Your task to perform on an android device: turn off data saver in the chrome app Image 0: 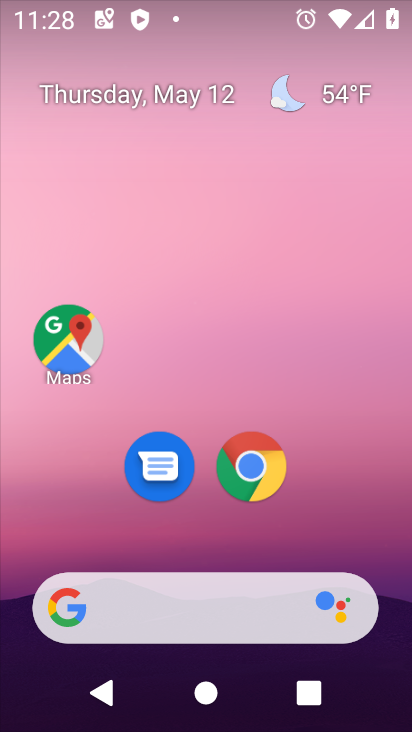
Step 0: drag from (369, 550) to (345, 202)
Your task to perform on an android device: turn off data saver in the chrome app Image 1: 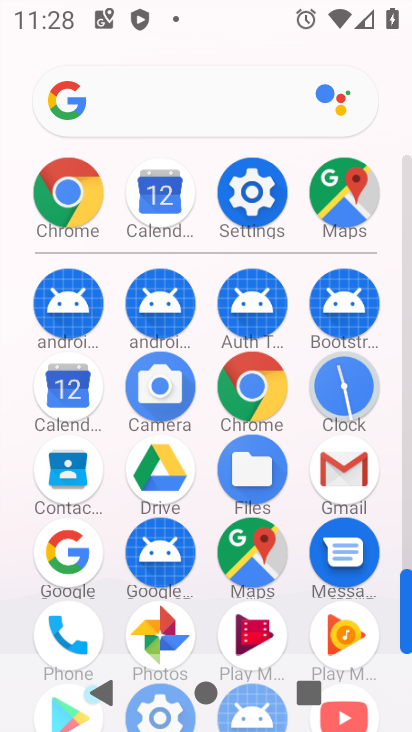
Step 1: click (276, 397)
Your task to perform on an android device: turn off data saver in the chrome app Image 2: 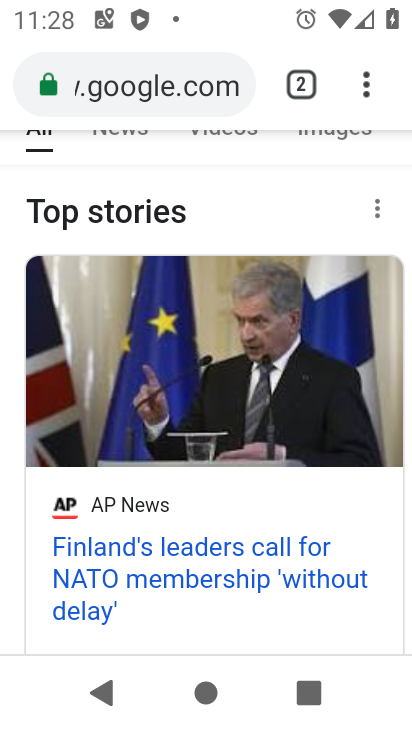
Step 2: drag from (335, 558) to (404, 195)
Your task to perform on an android device: turn off data saver in the chrome app Image 3: 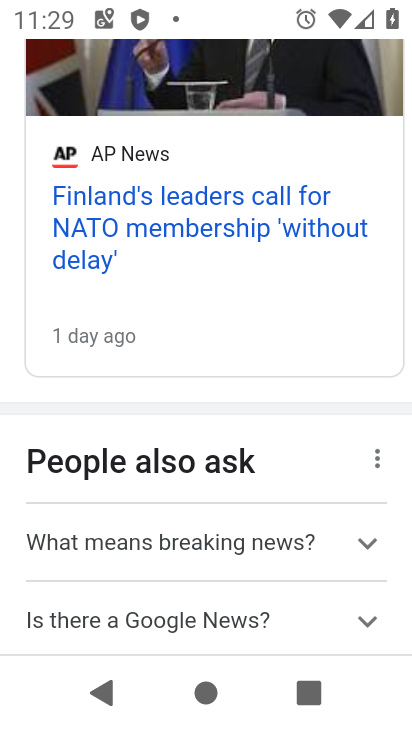
Step 3: drag from (254, 597) to (286, 315)
Your task to perform on an android device: turn off data saver in the chrome app Image 4: 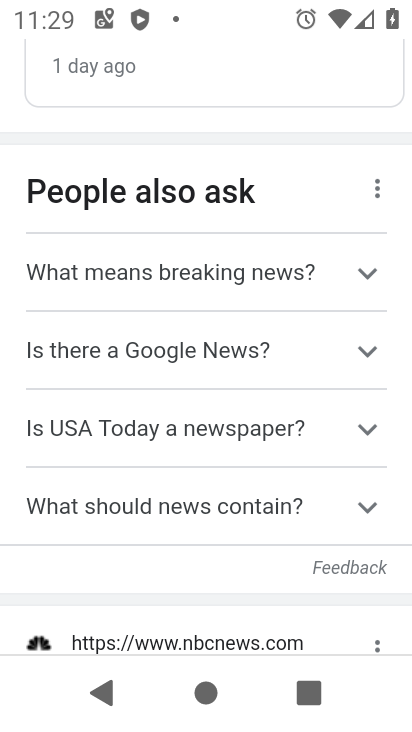
Step 4: drag from (325, 212) to (319, 447)
Your task to perform on an android device: turn off data saver in the chrome app Image 5: 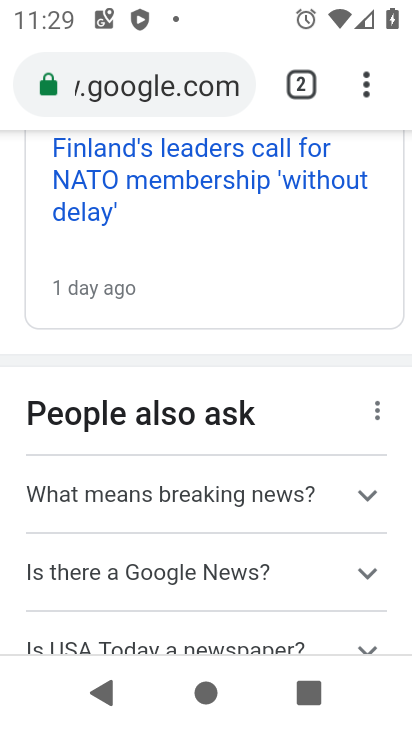
Step 5: drag from (370, 109) to (184, 525)
Your task to perform on an android device: turn off data saver in the chrome app Image 6: 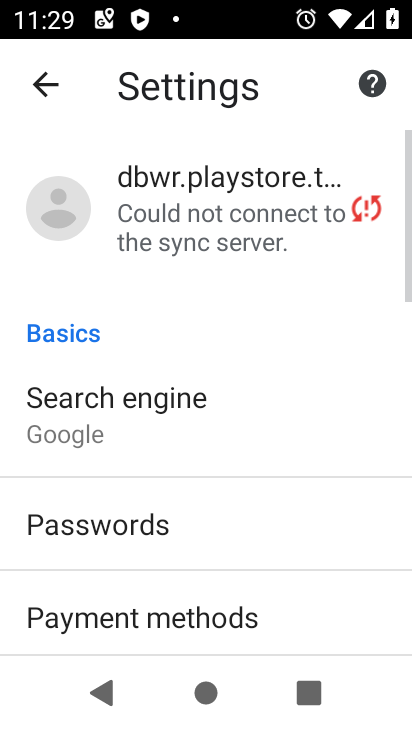
Step 6: drag from (379, 644) to (290, 261)
Your task to perform on an android device: turn off data saver in the chrome app Image 7: 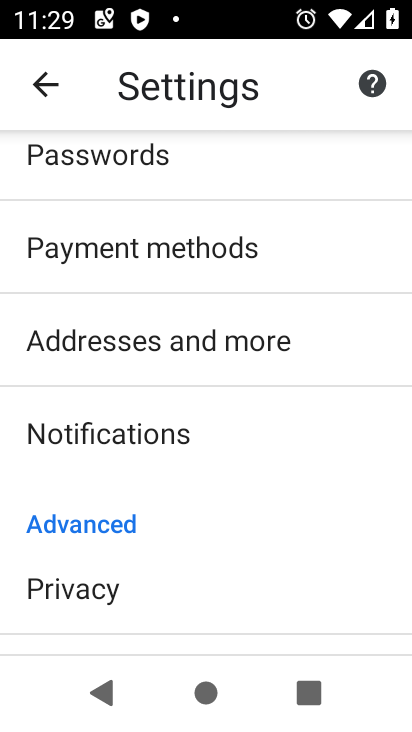
Step 7: drag from (327, 577) to (325, 232)
Your task to perform on an android device: turn off data saver in the chrome app Image 8: 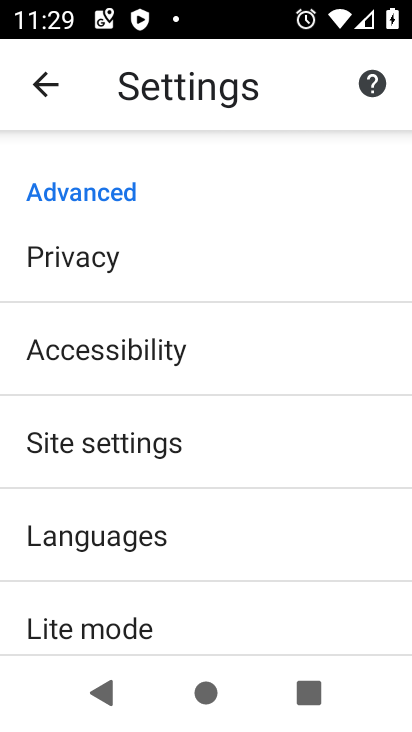
Step 8: drag from (326, 631) to (341, 235)
Your task to perform on an android device: turn off data saver in the chrome app Image 9: 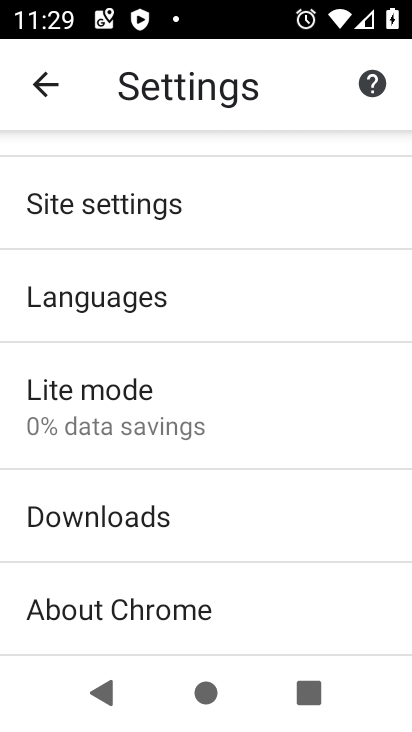
Step 9: click (186, 424)
Your task to perform on an android device: turn off data saver in the chrome app Image 10: 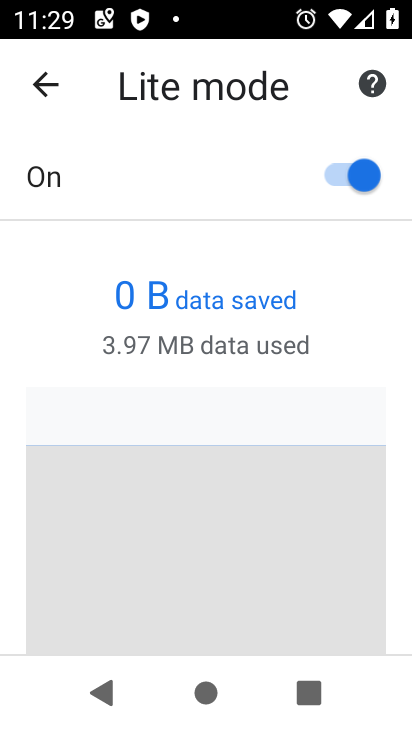
Step 10: click (331, 176)
Your task to perform on an android device: turn off data saver in the chrome app Image 11: 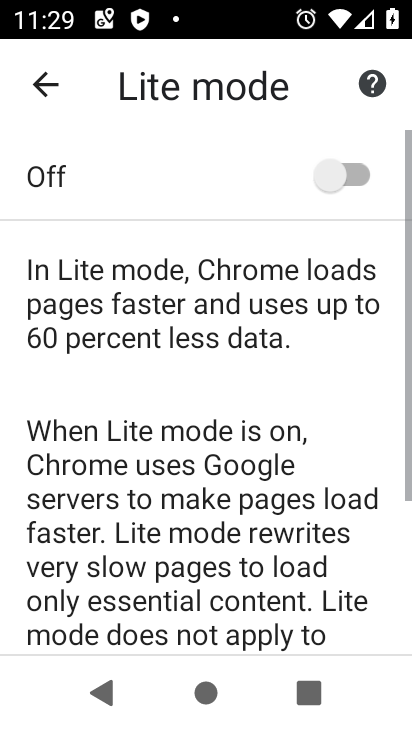
Step 11: task complete